Your task to perform on an android device: Do I have any events today? Image 0: 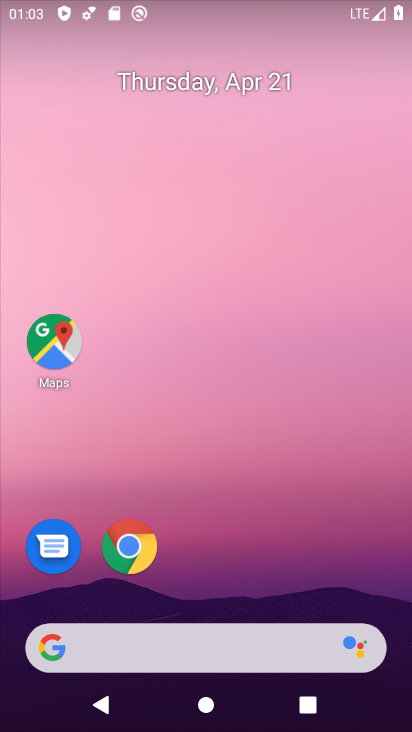
Step 0: drag from (240, 472) to (242, 133)
Your task to perform on an android device: Do I have any events today? Image 1: 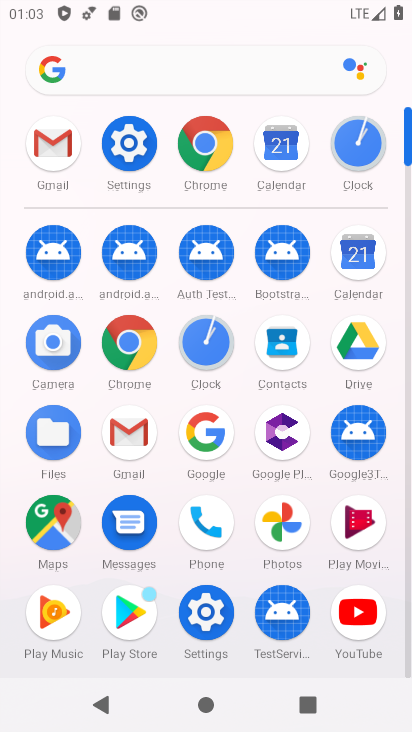
Step 1: click (351, 266)
Your task to perform on an android device: Do I have any events today? Image 2: 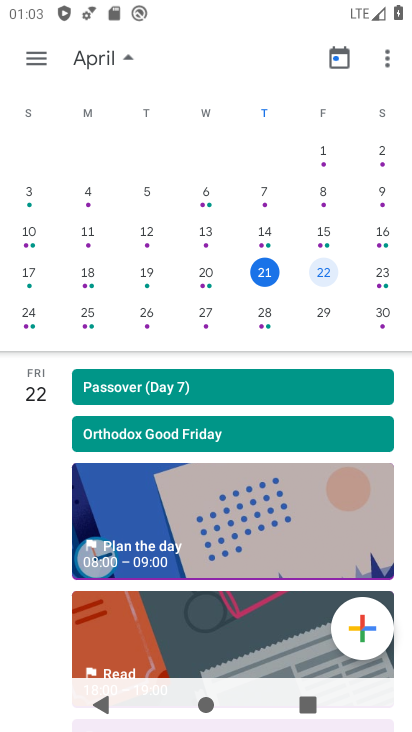
Step 2: click (258, 276)
Your task to perform on an android device: Do I have any events today? Image 3: 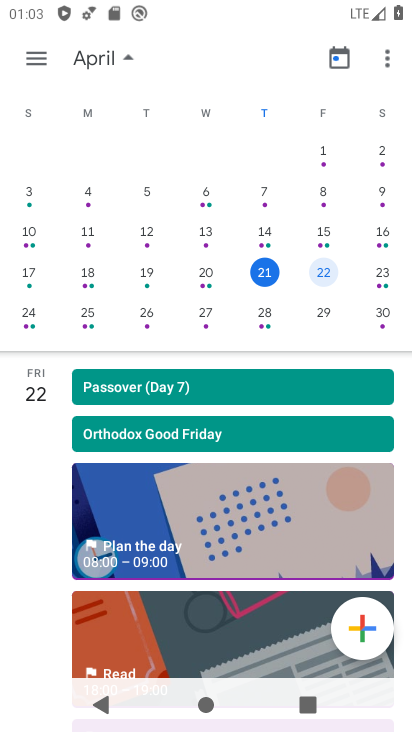
Step 3: click (275, 271)
Your task to perform on an android device: Do I have any events today? Image 4: 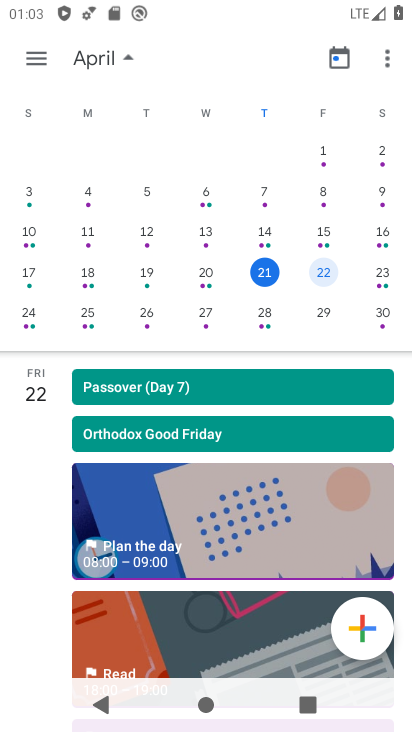
Step 4: drag from (256, 473) to (262, 675)
Your task to perform on an android device: Do I have any events today? Image 5: 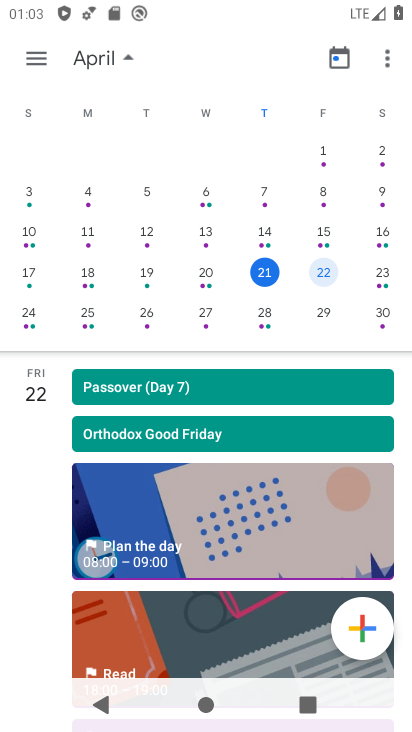
Step 5: drag from (282, 462) to (282, 678)
Your task to perform on an android device: Do I have any events today? Image 6: 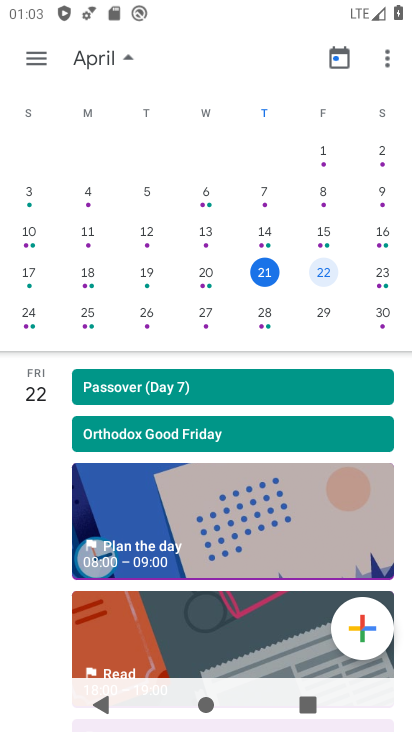
Step 6: click (265, 273)
Your task to perform on an android device: Do I have any events today? Image 7: 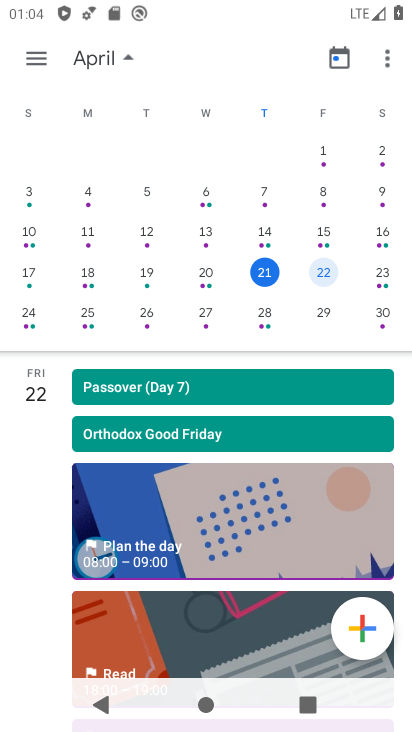
Step 7: click (265, 273)
Your task to perform on an android device: Do I have any events today? Image 8: 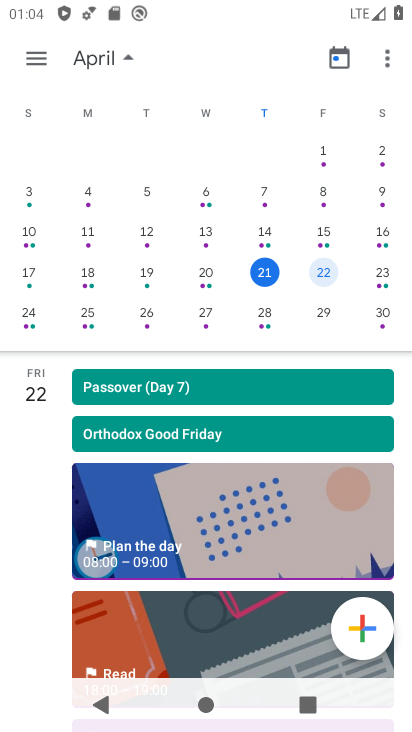
Step 8: click (265, 273)
Your task to perform on an android device: Do I have any events today? Image 9: 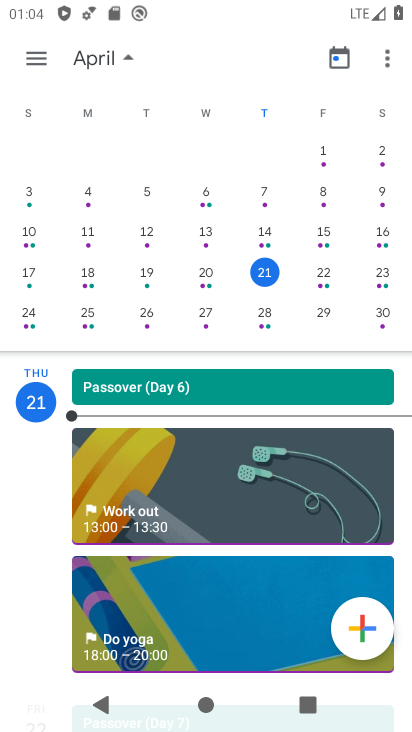
Step 9: task complete